Your task to perform on an android device: Open location settings Image 0: 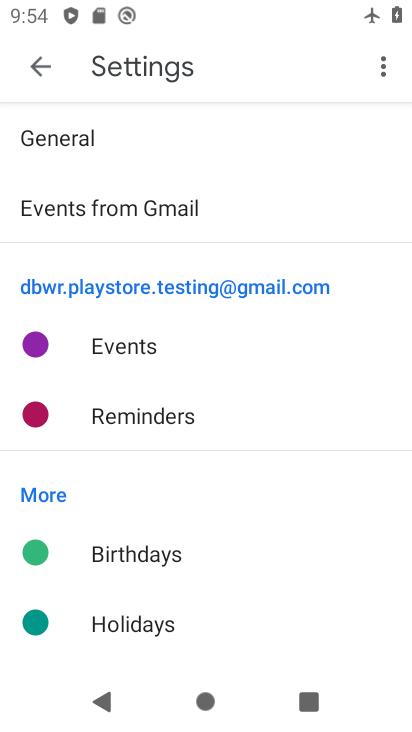
Step 0: press home button
Your task to perform on an android device: Open location settings Image 1: 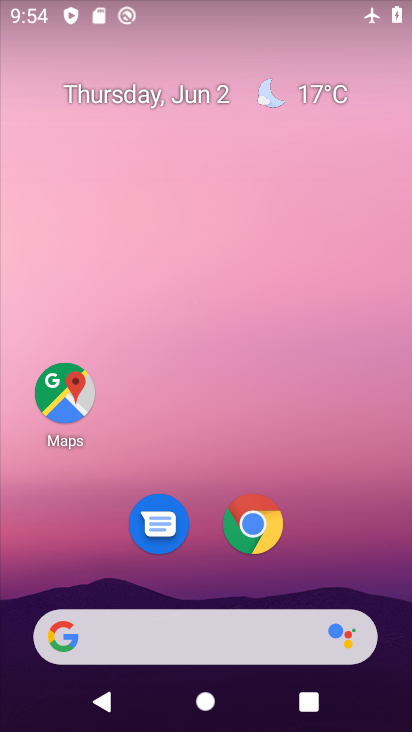
Step 1: drag from (326, 531) to (306, 29)
Your task to perform on an android device: Open location settings Image 2: 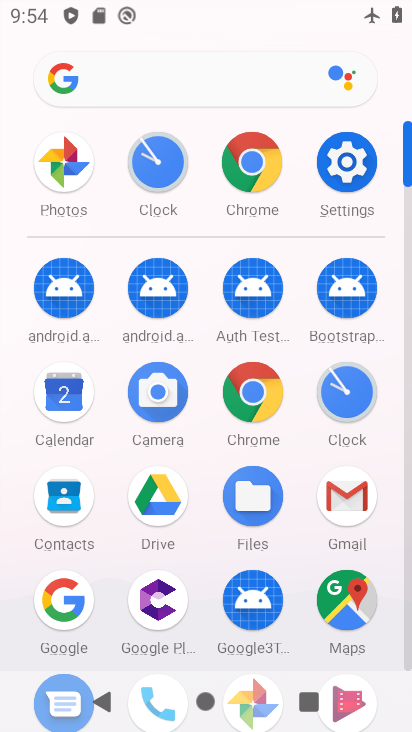
Step 2: click (336, 171)
Your task to perform on an android device: Open location settings Image 3: 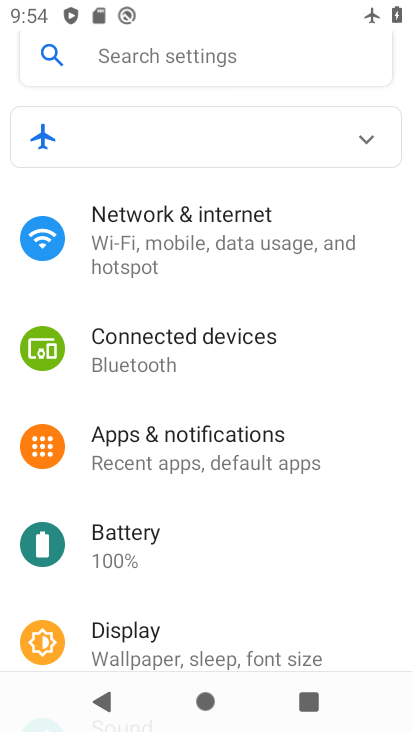
Step 3: drag from (253, 567) to (261, 111)
Your task to perform on an android device: Open location settings Image 4: 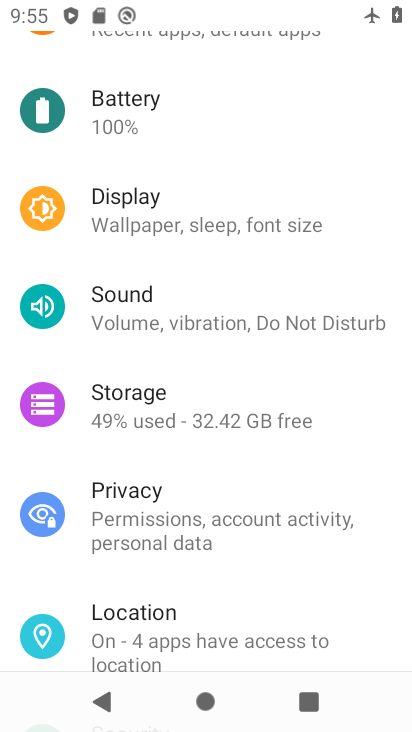
Step 4: click (215, 618)
Your task to perform on an android device: Open location settings Image 5: 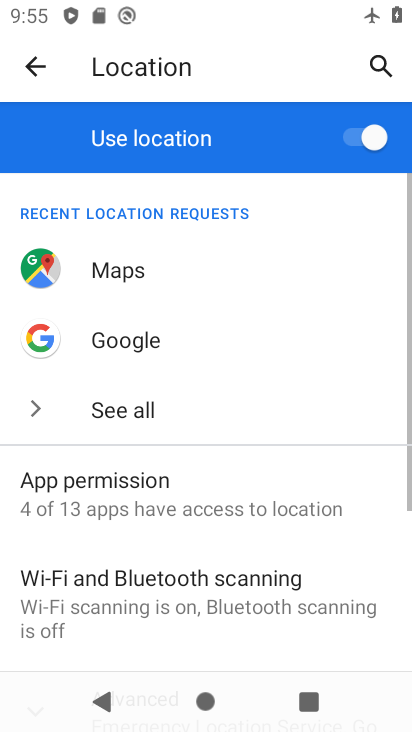
Step 5: task complete